Your task to perform on an android device: toggle priority inbox in the gmail app Image 0: 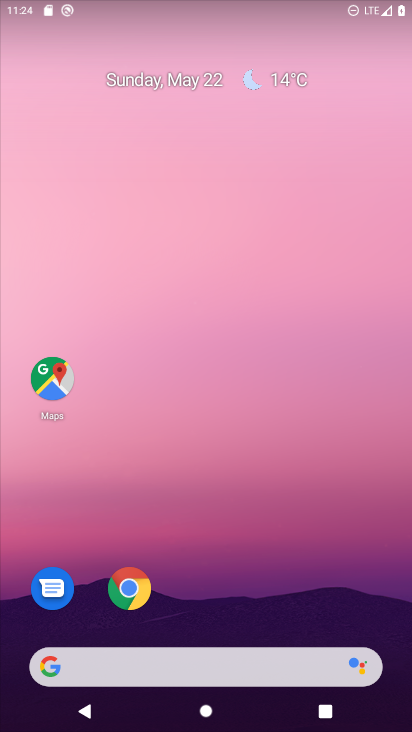
Step 0: drag from (207, 604) to (227, 142)
Your task to perform on an android device: toggle priority inbox in the gmail app Image 1: 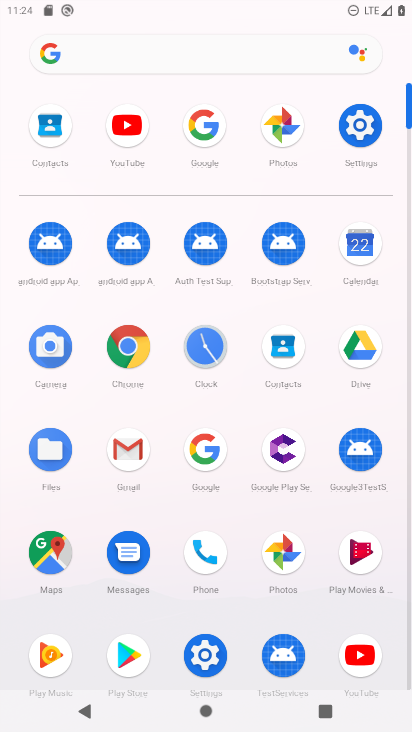
Step 1: click (141, 458)
Your task to perform on an android device: toggle priority inbox in the gmail app Image 2: 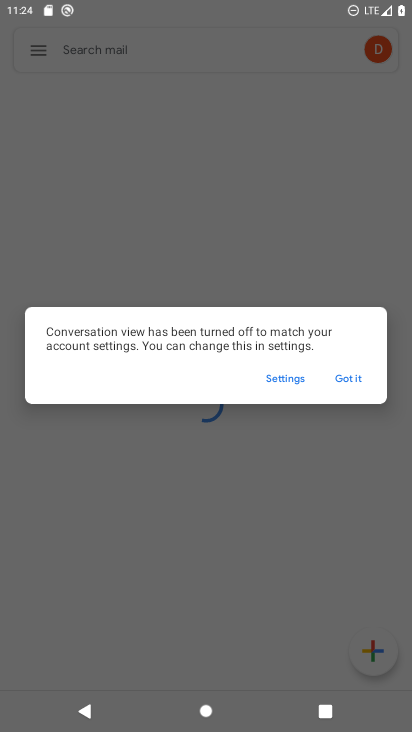
Step 2: click (335, 379)
Your task to perform on an android device: toggle priority inbox in the gmail app Image 3: 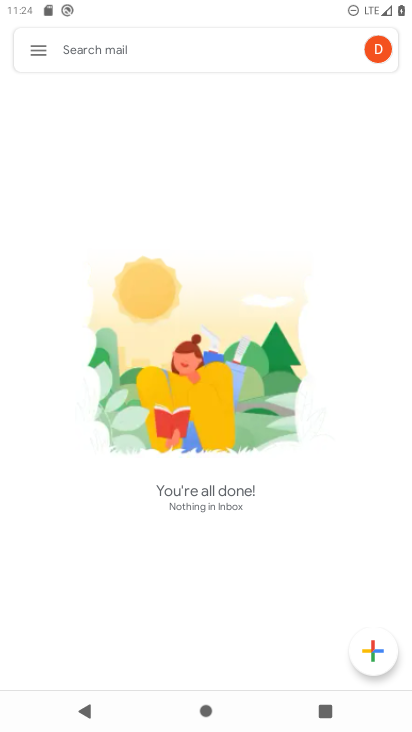
Step 3: click (38, 45)
Your task to perform on an android device: toggle priority inbox in the gmail app Image 4: 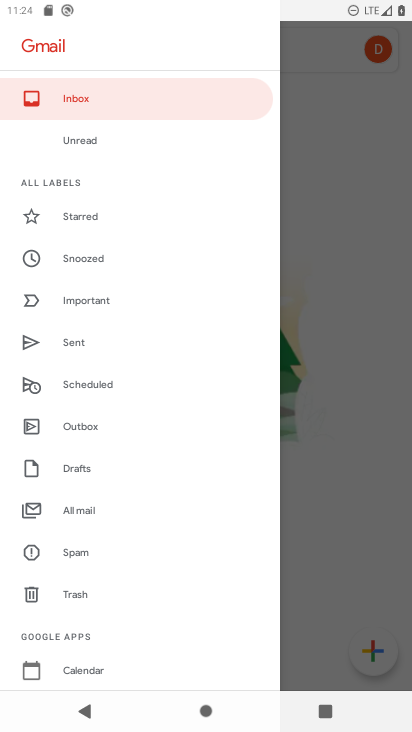
Step 4: drag from (91, 620) to (105, 373)
Your task to perform on an android device: toggle priority inbox in the gmail app Image 5: 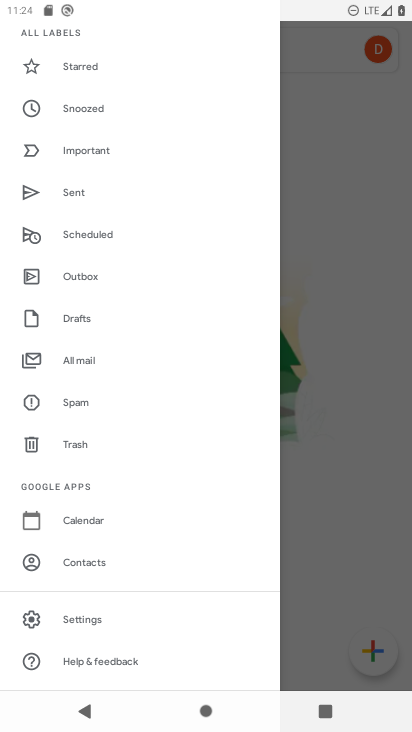
Step 5: click (100, 616)
Your task to perform on an android device: toggle priority inbox in the gmail app Image 6: 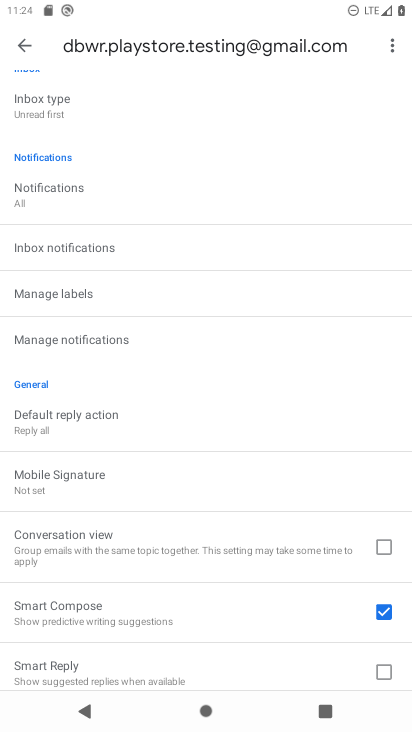
Step 6: drag from (113, 147) to (143, 296)
Your task to perform on an android device: toggle priority inbox in the gmail app Image 7: 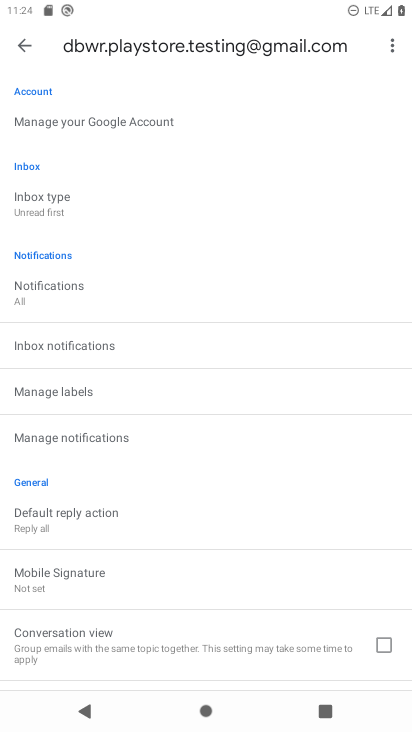
Step 7: click (79, 205)
Your task to perform on an android device: toggle priority inbox in the gmail app Image 8: 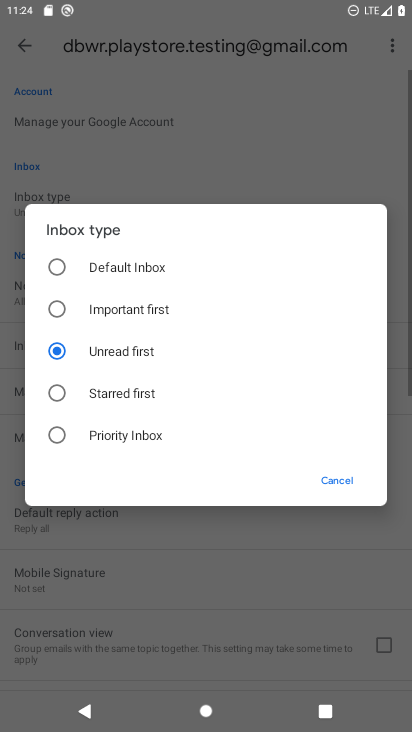
Step 8: click (129, 448)
Your task to perform on an android device: toggle priority inbox in the gmail app Image 9: 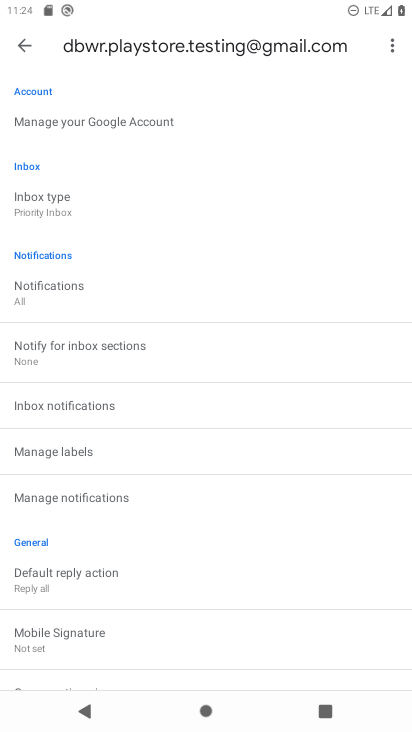
Step 9: task complete